Your task to perform on an android device: star an email in the gmail app Image 0: 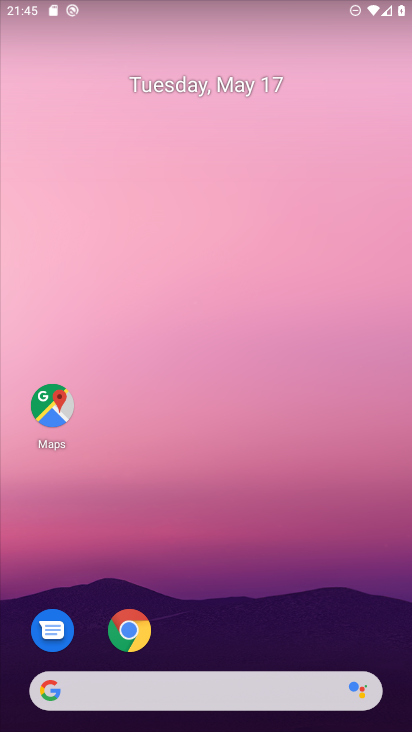
Step 0: drag from (352, 621) to (352, 203)
Your task to perform on an android device: star an email in the gmail app Image 1: 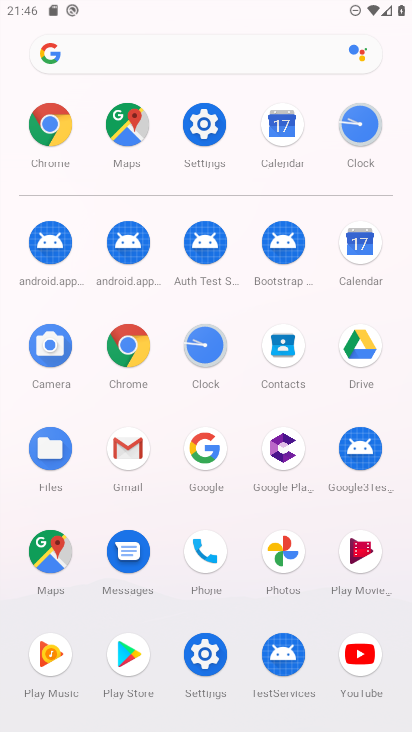
Step 1: click (129, 458)
Your task to perform on an android device: star an email in the gmail app Image 2: 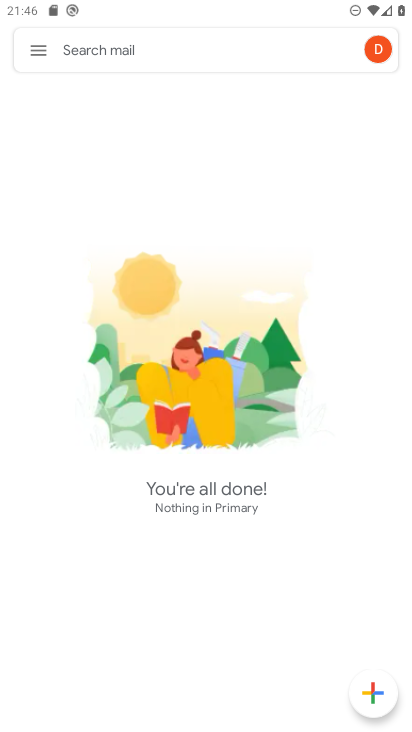
Step 2: click (50, 50)
Your task to perform on an android device: star an email in the gmail app Image 3: 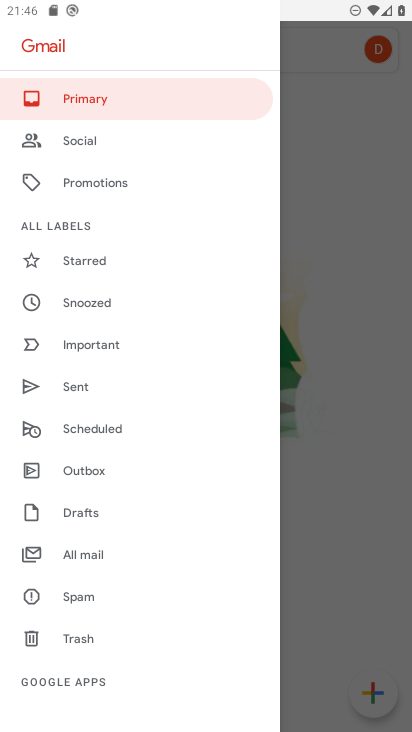
Step 3: drag from (203, 607) to (195, 493)
Your task to perform on an android device: star an email in the gmail app Image 4: 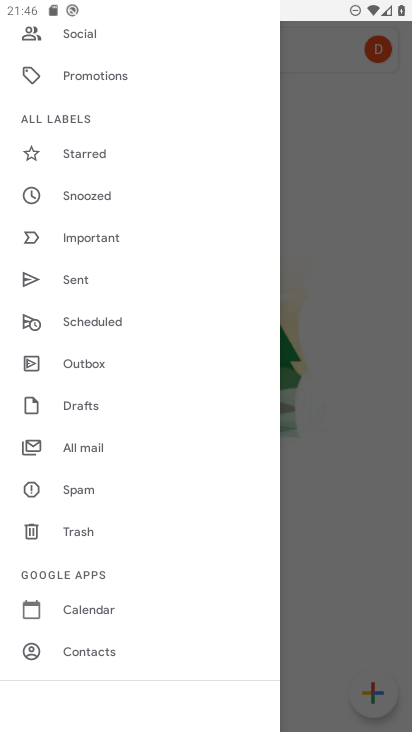
Step 4: drag from (202, 607) to (201, 453)
Your task to perform on an android device: star an email in the gmail app Image 5: 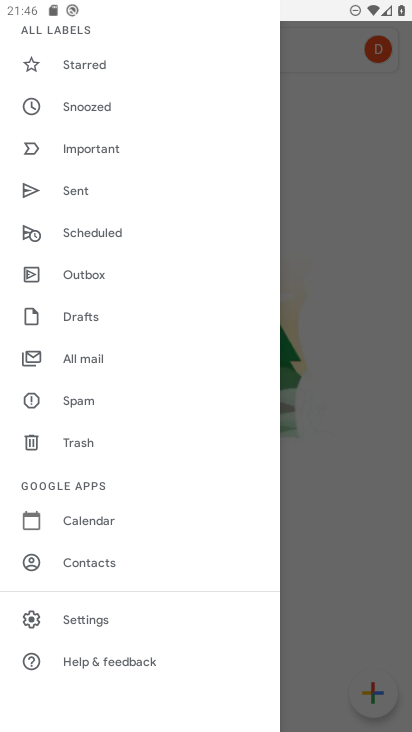
Step 5: drag from (220, 590) to (215, 379)
Your task to perform on an android device: star an email in the gmail app Image 6: 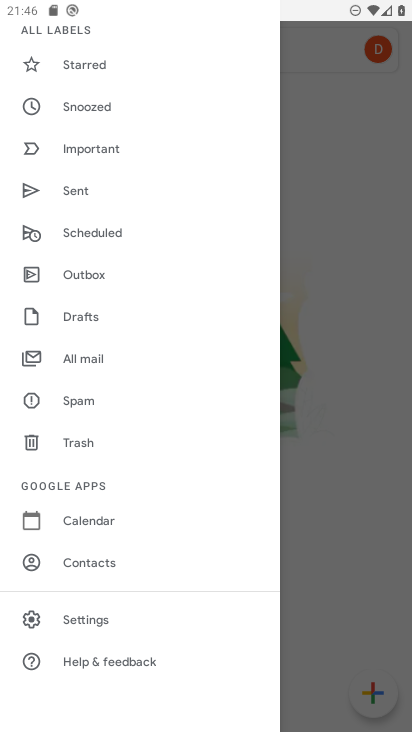
Step 6: drag from (209, 229) to (208, 365)
Your task to perform on an android device: star an email in the gmail app Image 7: 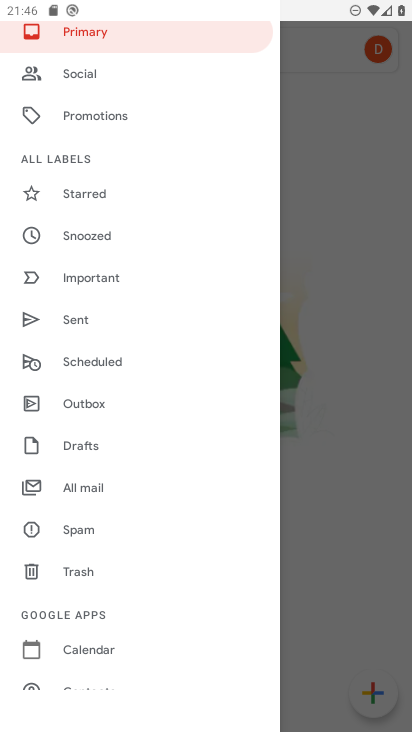
Step 7: drag from (209, 235) to (209, 322)
Your task to perform on an android device: star an email in the gmail app Image 8: 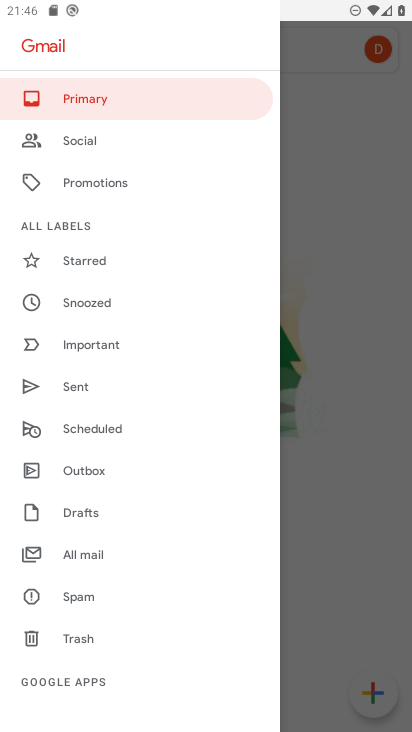
Step 8: click (139, 103)
Your task to perform on an android device: star an email in the gmail app Image 9: 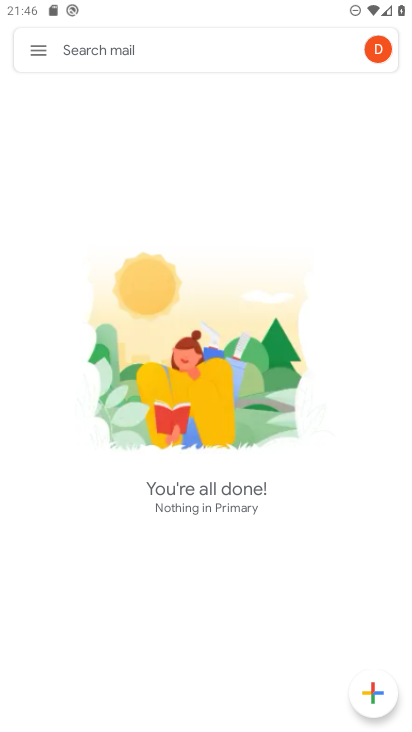
Step 9: task complete